Your task to perform on an android device: What's on my calendar today? Image 0: 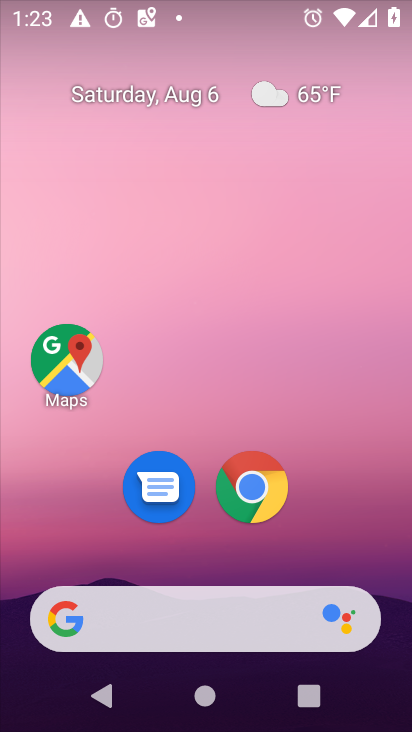
Step 0: drag from (201, 477) to (197, 5)
Your task to perform on an android device: What's on my calendar today? Image 1: 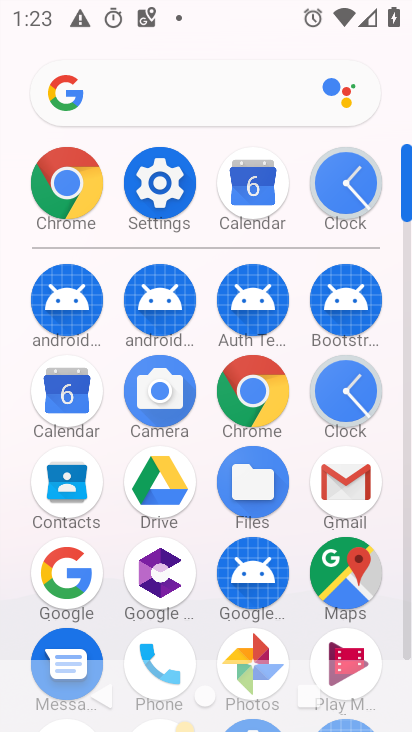
Step 1: click (78, 396)
Your task to perform on an android device: What's on my calendar today? Image 2: 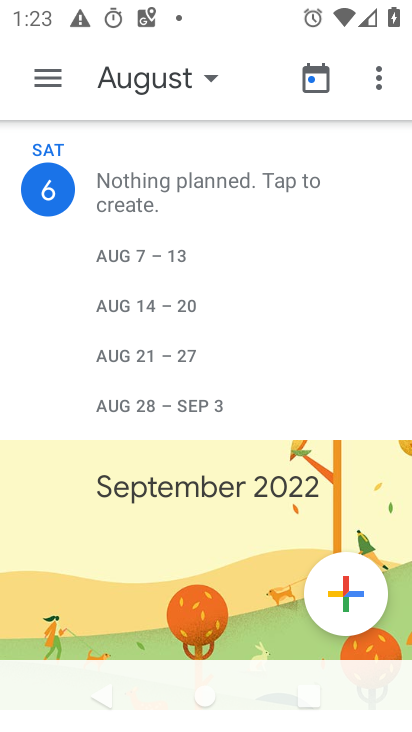
Step 2: task complete